Your task to perform on an android device: turn on priority inbox in the gmail app Image 0: 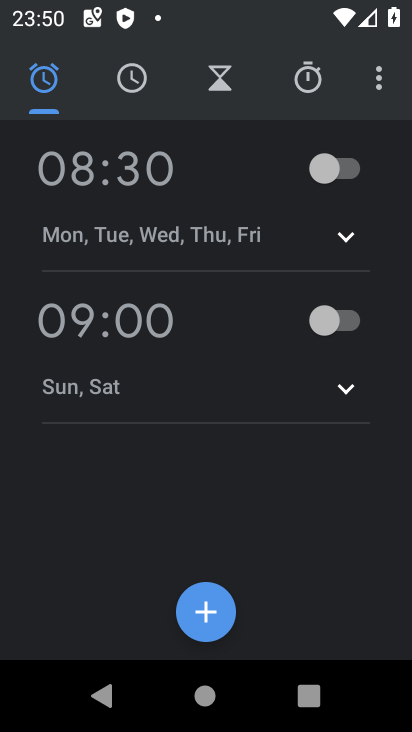
Step 0: press home button
Your task to perform on an android device: turn on priority inbox in the gmail app Image 1: 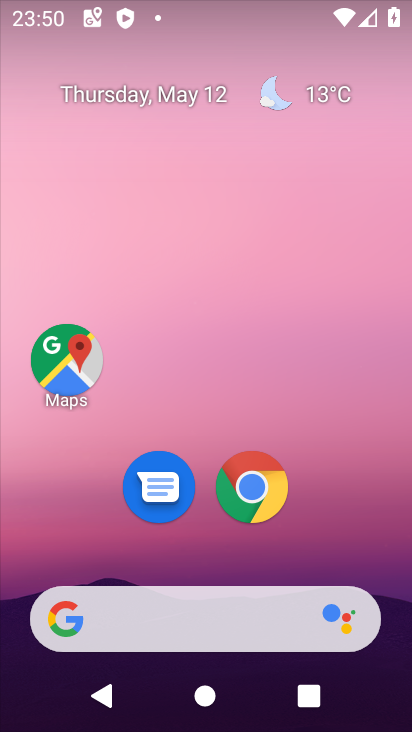
Step 1: drag from (193, 553) to (224, 244)
Your task to perform on an android device: turn on priority inbox in the gmail app Image 2: 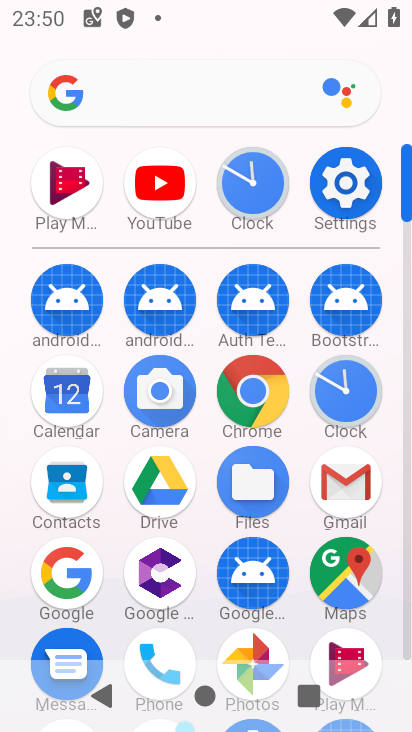
Step 2: click (352, 492)
Your task to perform on an android device: turn on priority inbox in the gmail app Image 3: 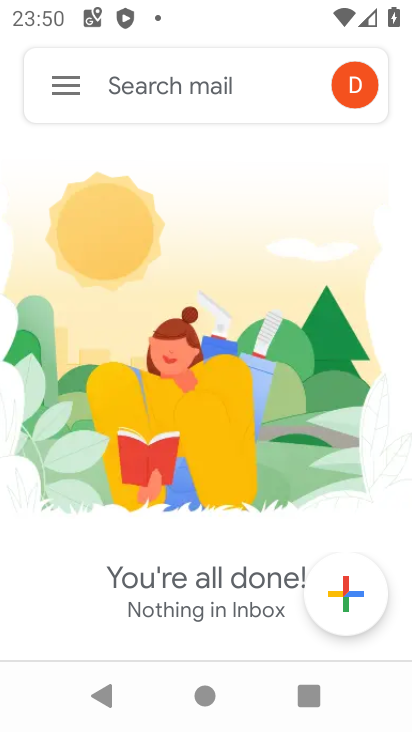
Step 3: click (66, 87)
Your task to perform on an android device: turn on priority inbox in the gmail app Image 4: 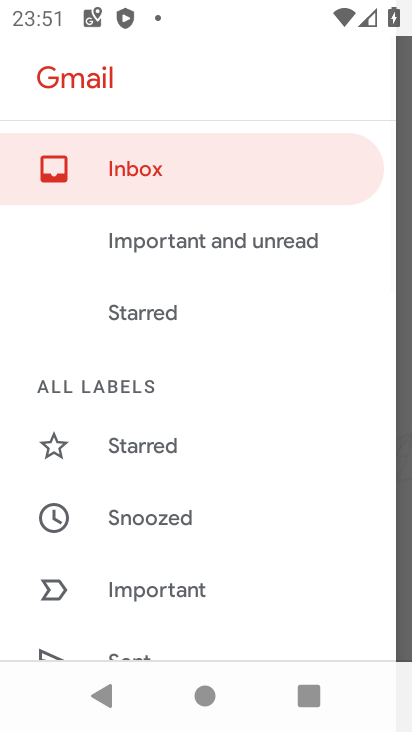
Step 4: drag from (158, 566) to (200, 193)
Your task to perform on an android device: turn on priority inbox in the gmail app Image 5: 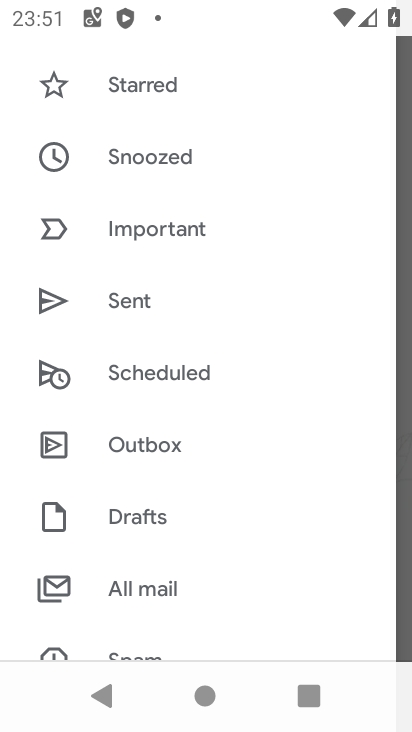
Step 5: drag from (139, 574) to (197, 98)
Your task to perform on an android device: turn on priority inbox in the gmail app Image 6: 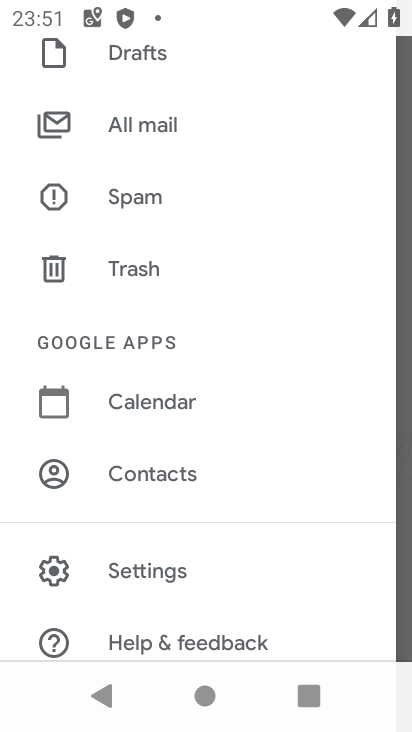
Step 6: click (154, 576)
Your task to perform on an android device: turn on priority inbox in the gmail app Image 7: 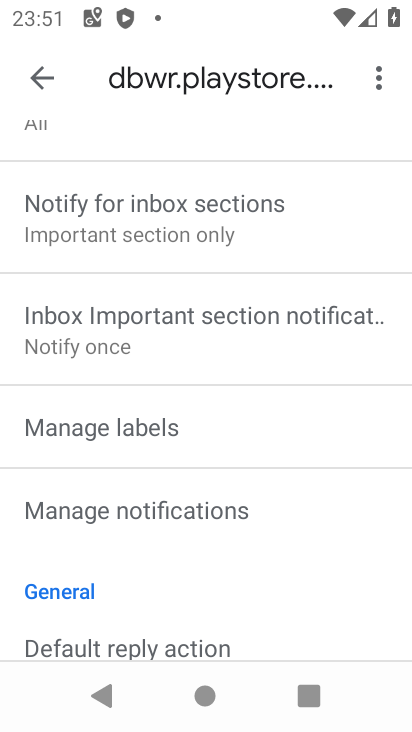
Step 7: drag from (153, 199) to (260, 575)
Your task to perform on an android device: turn on priority inbox in the gmail app Image 8: 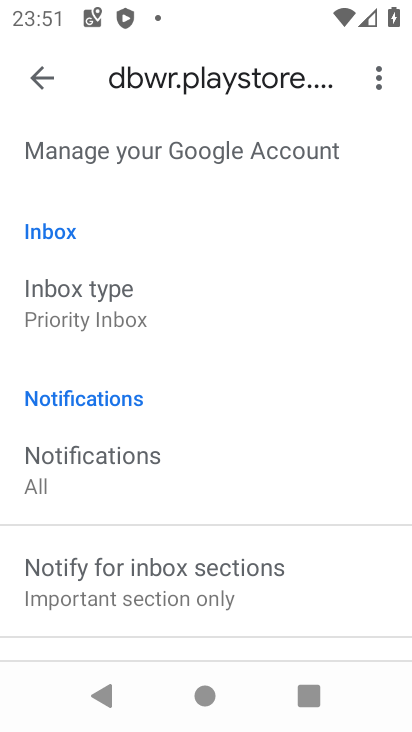
Step 8: click (117, 316)
Your task to perform on an android device: turn on priority inbox in the gmail app Image 9: 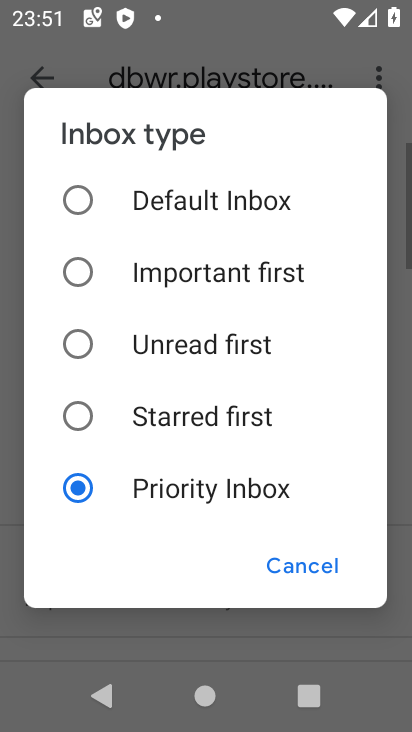
Step 9: task complete